Your task to perform on an android device: Go to Maps Image 0: 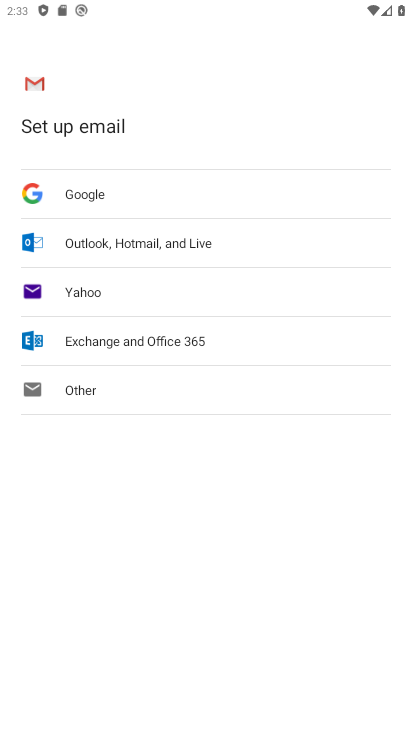
Step 0: press home button
Your task to perform on an android device: Go to Maps Image 1: 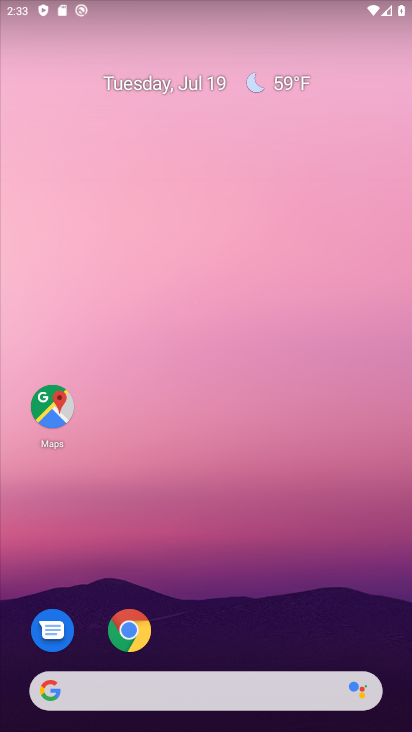
Step 1: drag from (327, 623) to (280, 138)
Your task to perform on an android device: Go to Maps Image 2: 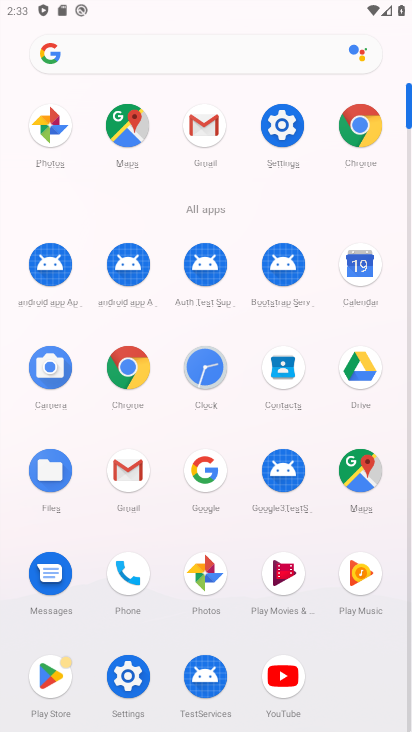
Step 2: click (132, 129)
Your task to perform on an android device: Go to Maps Image 3: 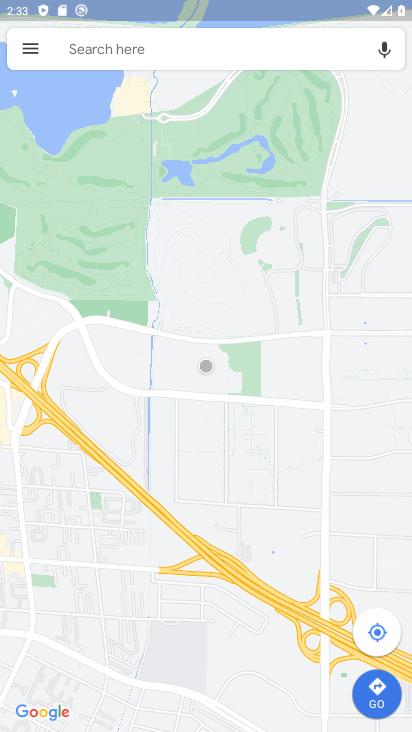
Step 3: task complete